Your task to perform on an android device: Open Chrome and go to settings Image 0: 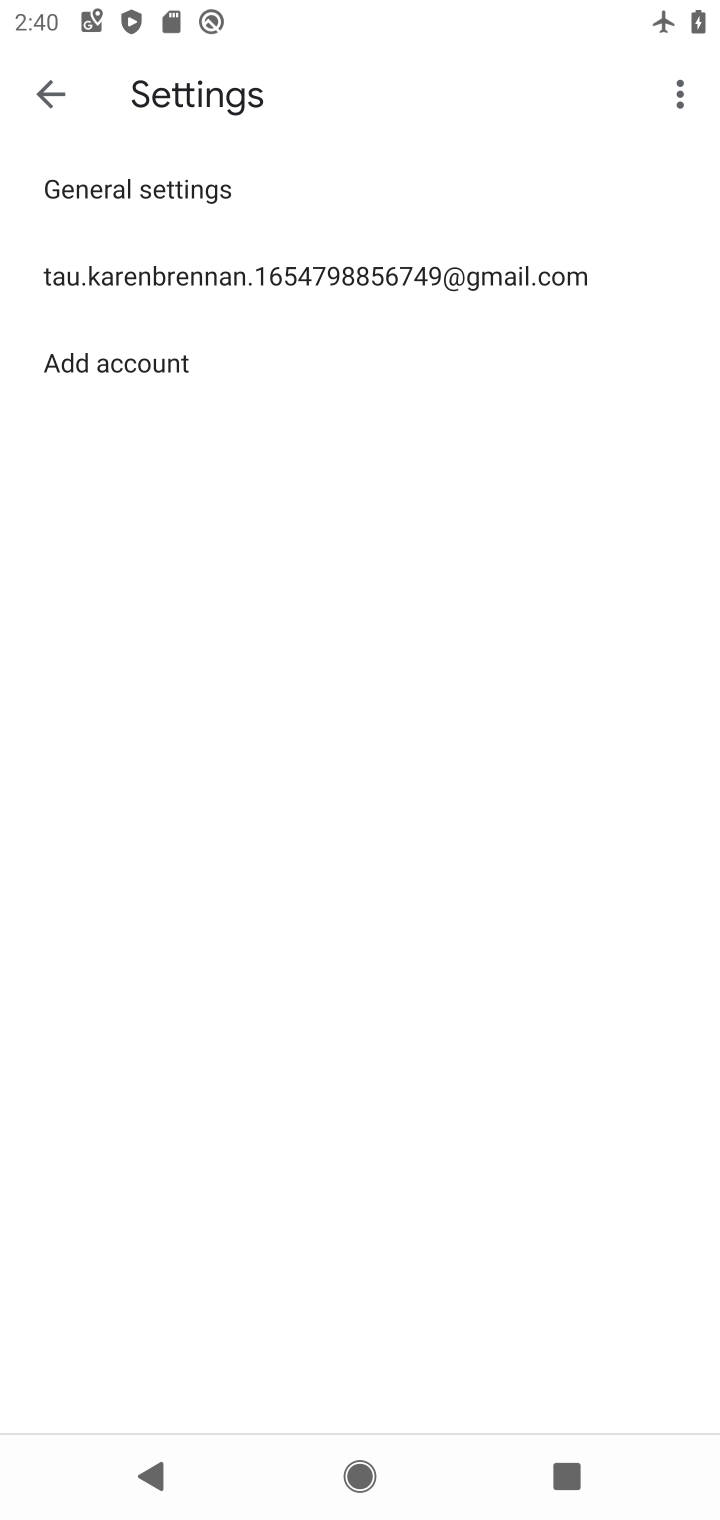
Step 0: press home button
Your task to perform on an android device: Open Chrome and go to settings Image 1: 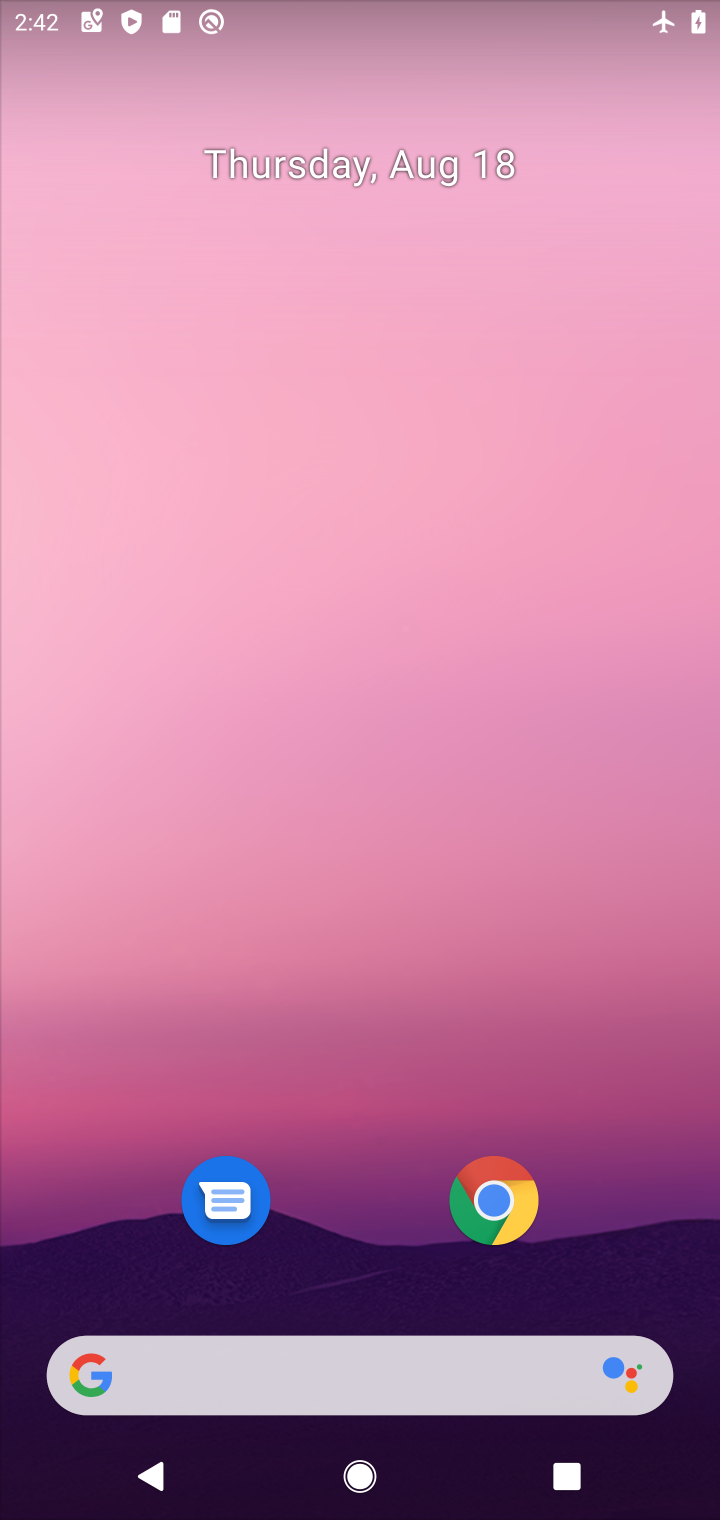
Step 1: drag from (310, 1206) to (503, 99)
Your task to perform on an android device: Open Chrome and go to settings Image 2: 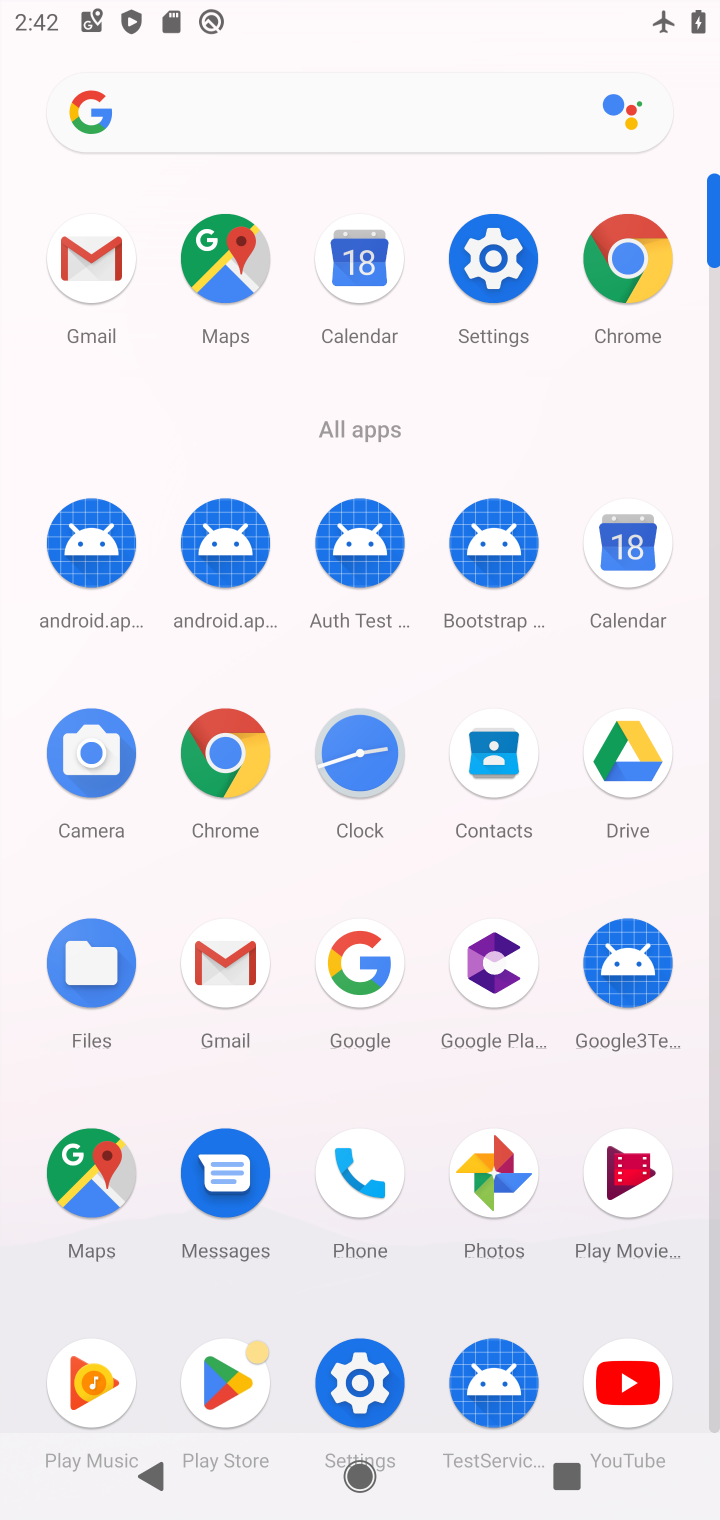
Step 2: click (217, 757)
Your task to perform on an android device: Open Chrome and go to settings Image 3: 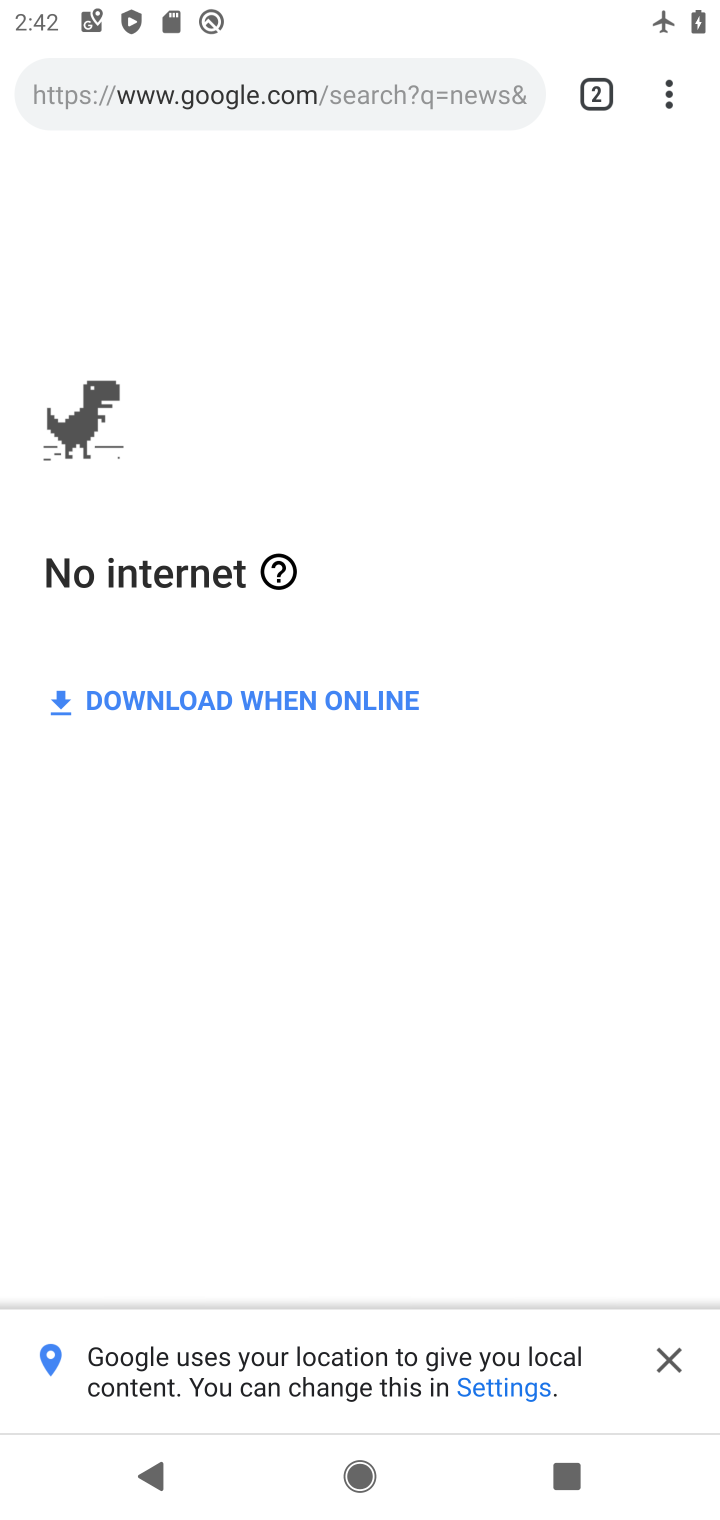
Step 3: drag from (543, 4) to (408, 841)
Your task to perform on an android device: Open Chrome and go to settings Image 4: 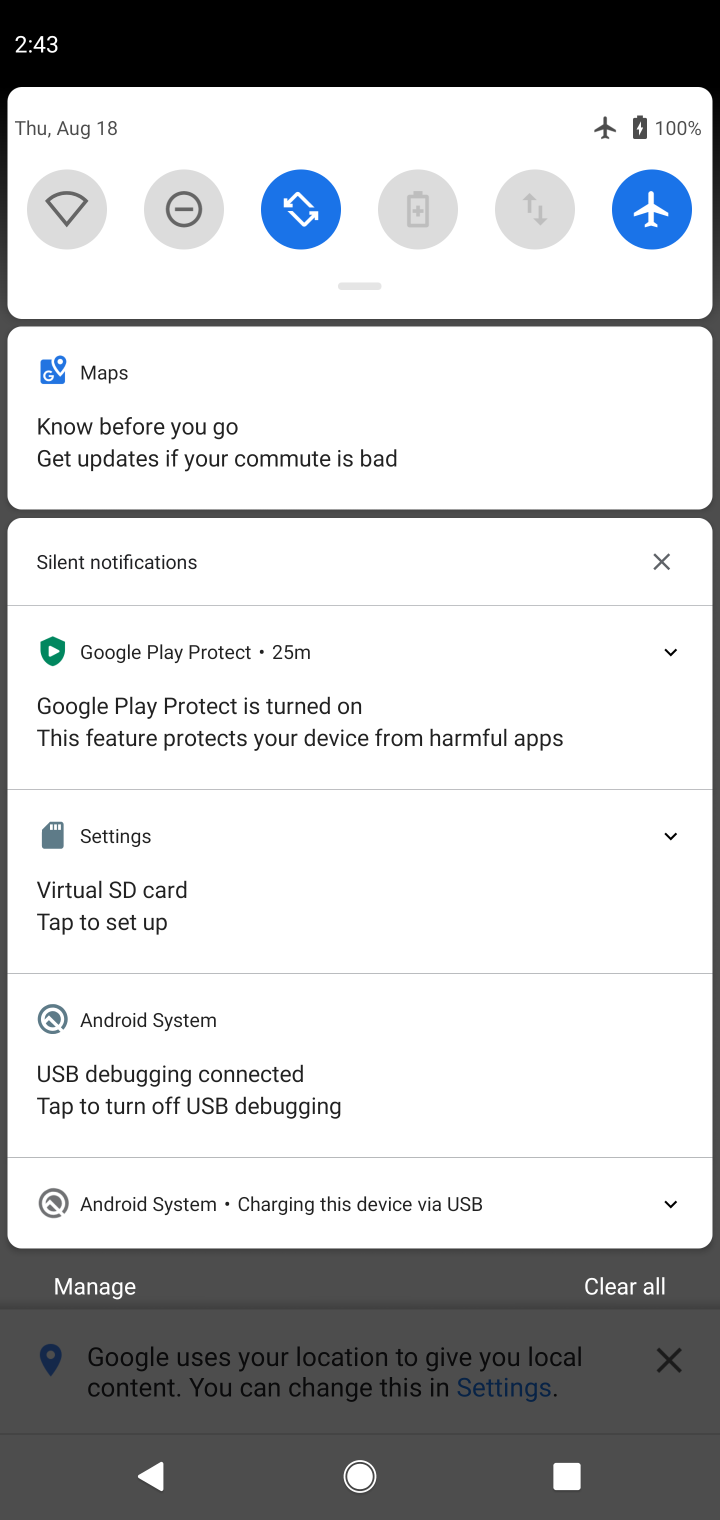
Step 4: click (652, 177)
Your task to perform on an android device: Open Chrome and go to settings Image 5: 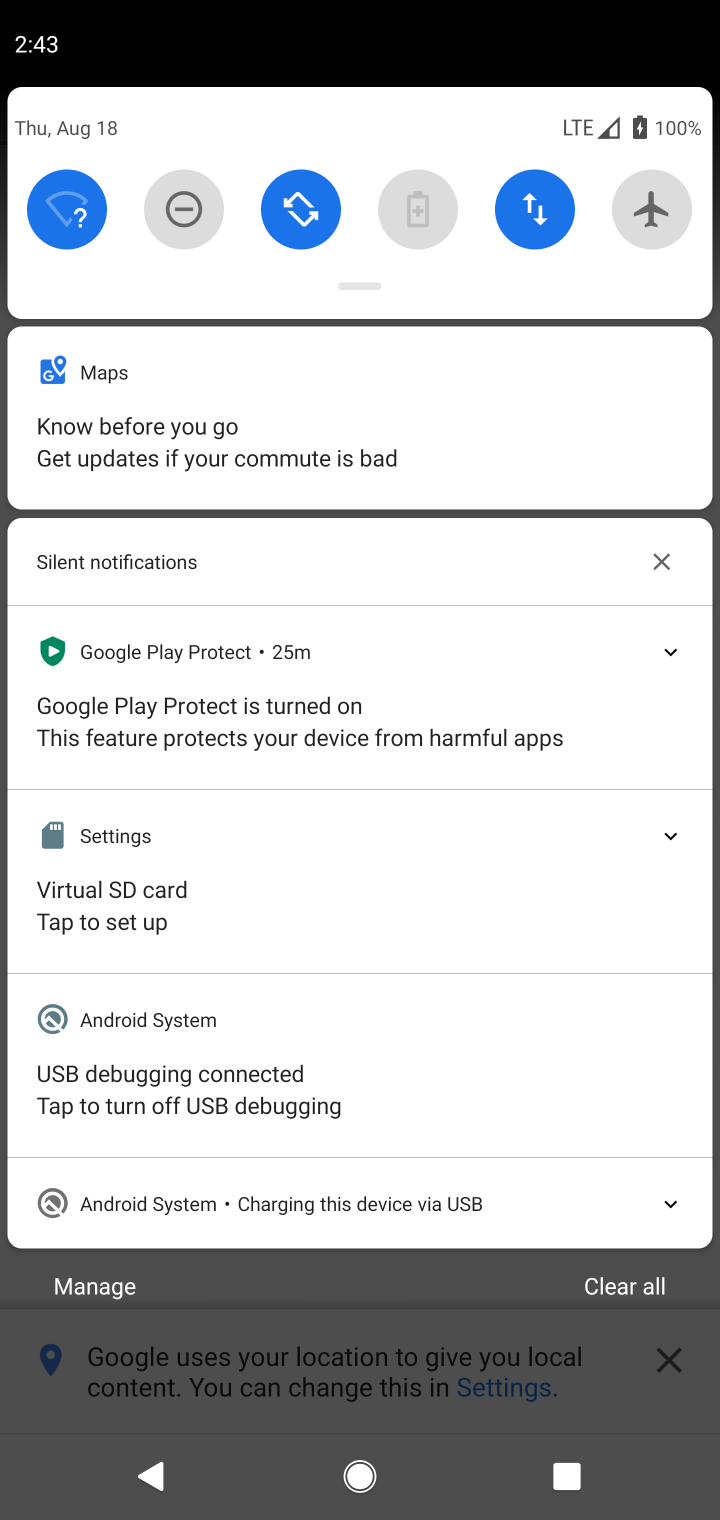
Step 5: click (663, 1271)
Your task to perform on an android device: Open Chrome and go to settings Image 6: 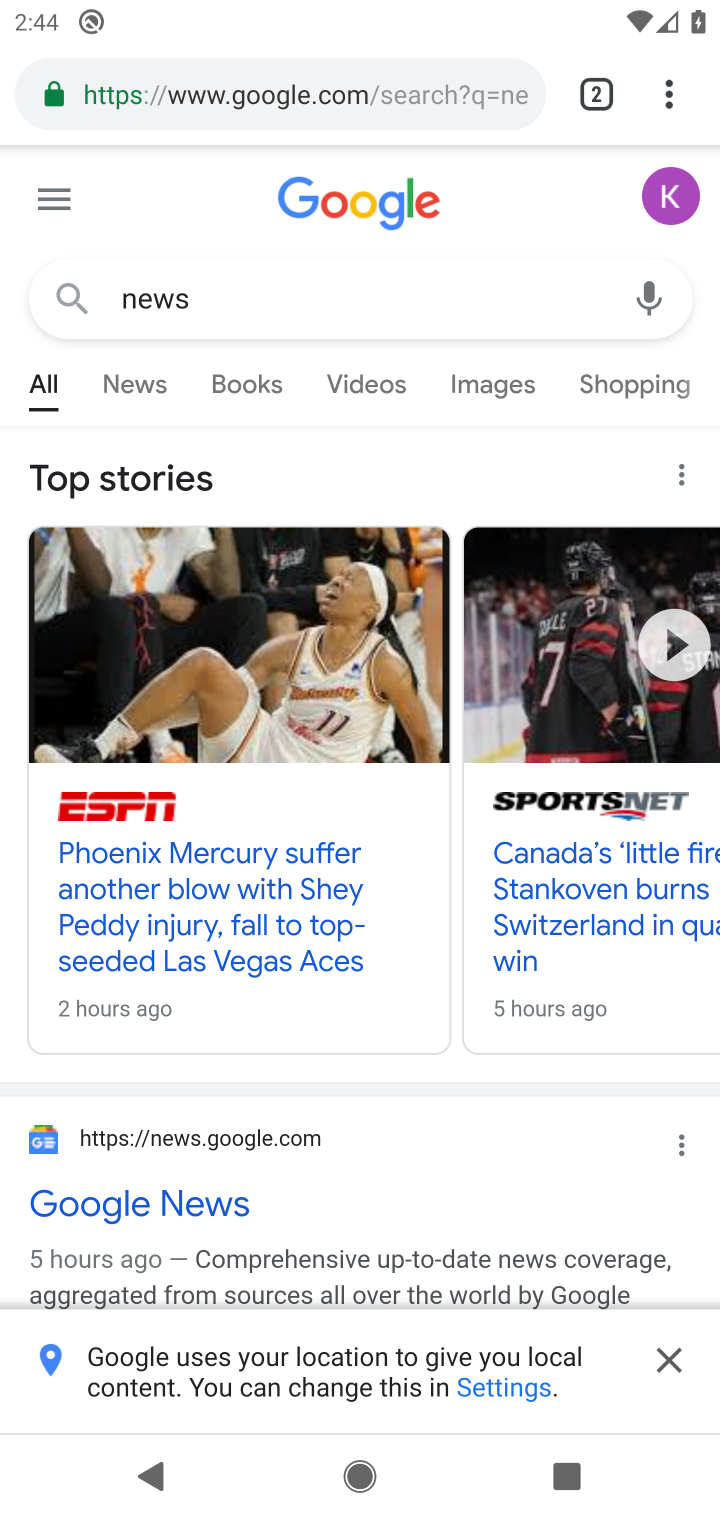
Step 6: task complete